Your task to perform on an android device: check out phone information Image 0: 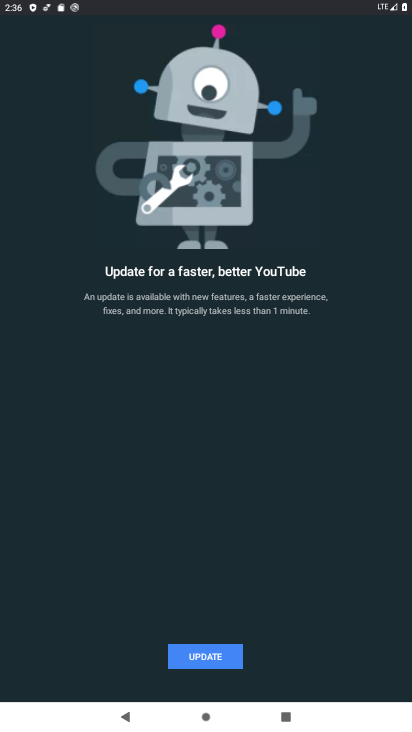
Step 0: press home button
Your task to perform on an android device: check out phone information Image 1: 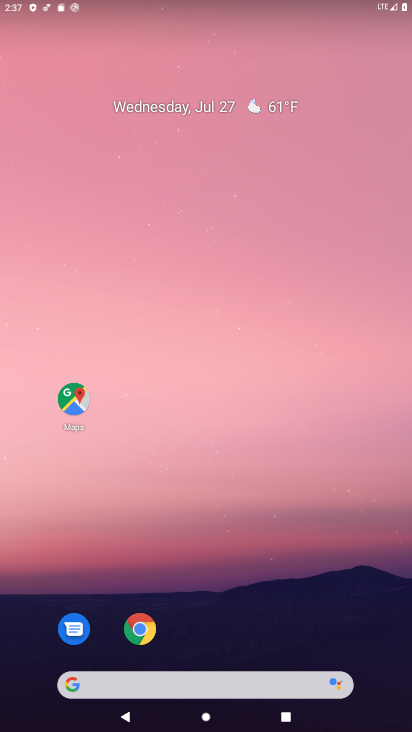
Step 1: drag from (192, 680) to (246, 129)
Your task to perform on an android device: check out phone information Image 2: 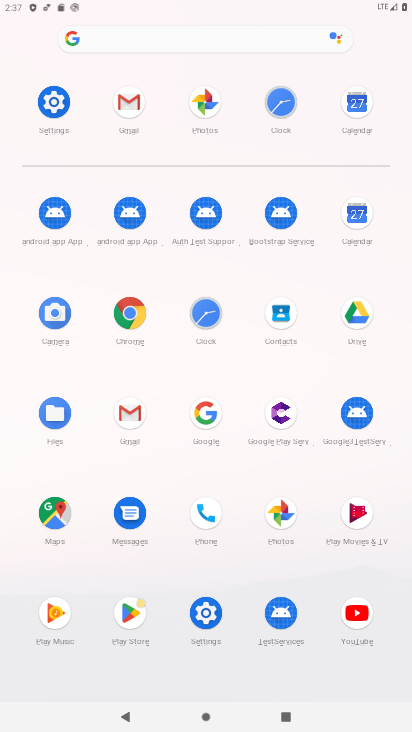
Step 2: click (53, 100)
Your task to perform on an android device: check out phone information Image 3: 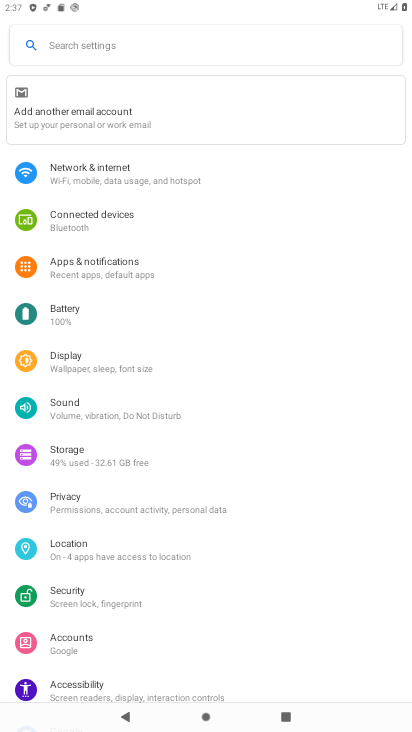
Step 3: drag from (66, 306) to (132, 234)
Your task to perform on an android device: check out phone information Image 4: 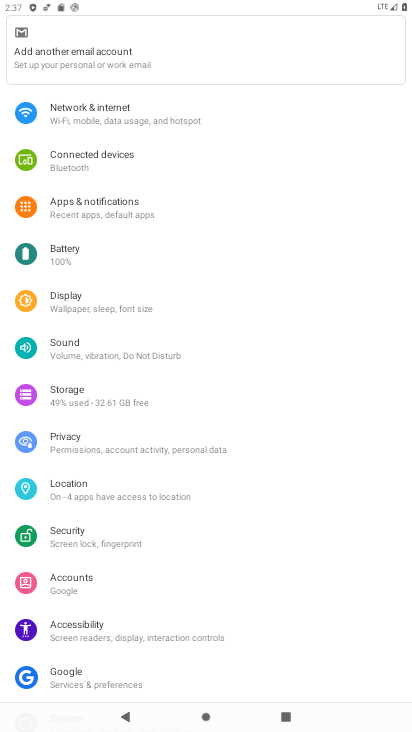
Step 4: drag from (106, 509) to (157, 429)
Your task to perform on an android device: check out phone information Image 5: 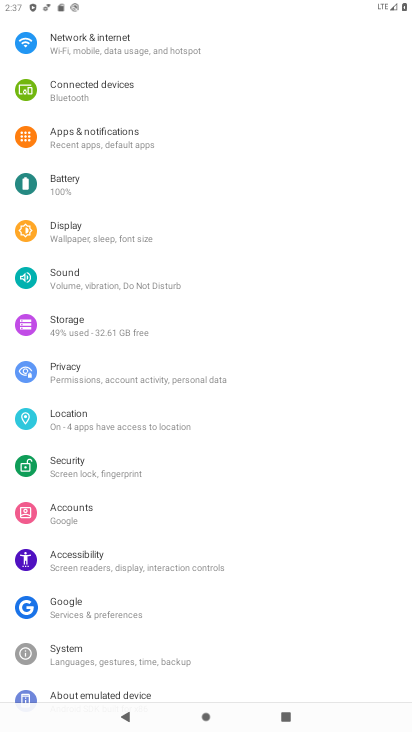
Step 5: drag from (121, 593) to (238, 462)
Your task to perform on an android device: check out phone information Image 6: 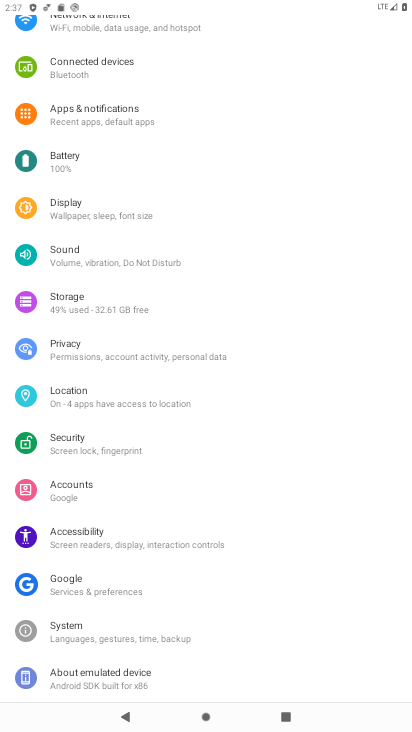
Step 6: click (141, 664)
Your task to perform on an android device: check out phone information Image 7: 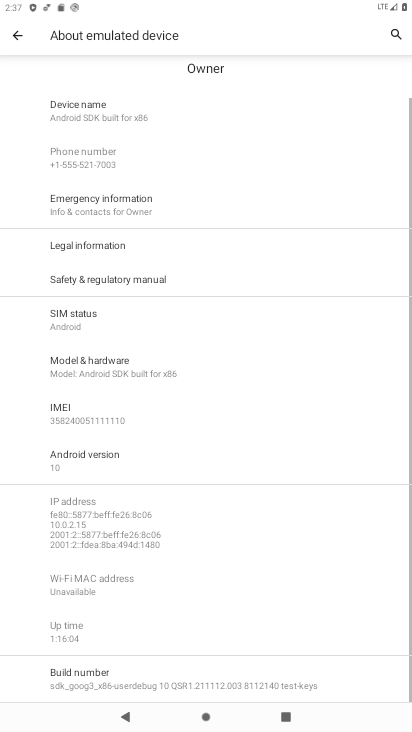
Step 7: task complete